Your task to perform on an android device: Open Android settings Image 0: 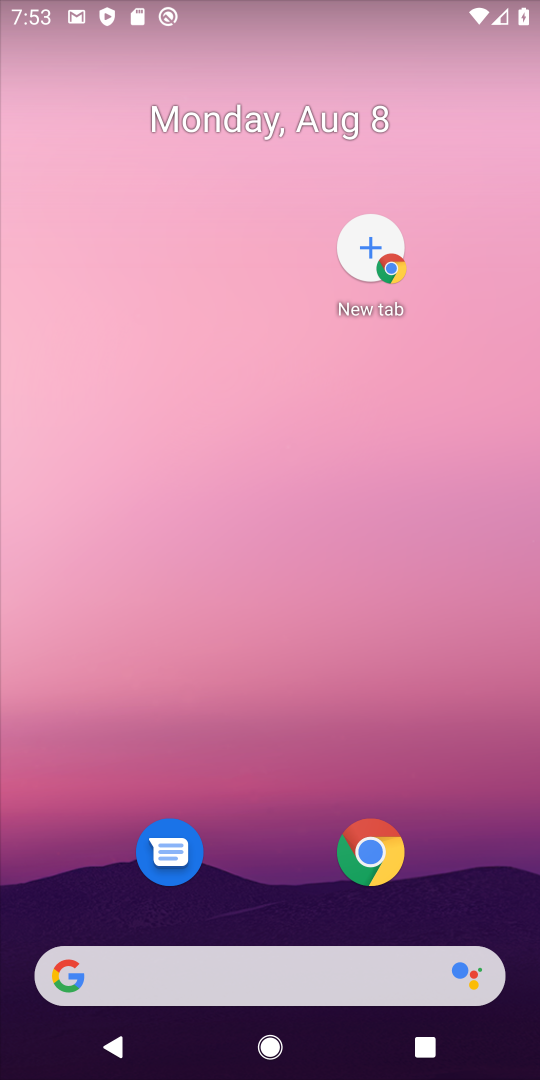
Step 0: drag from (269, 946) to (261, 117)
Your task to perform on an android device: Open Android settings Image 1: 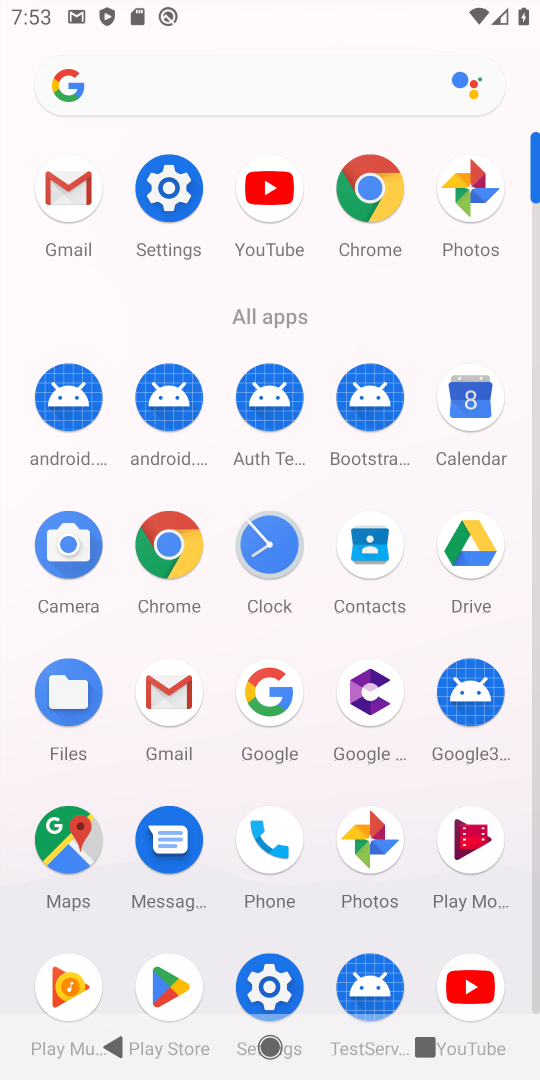
Step 1: click (151, 197)
Your task to perform on an android device: Open Android settings Image 2: 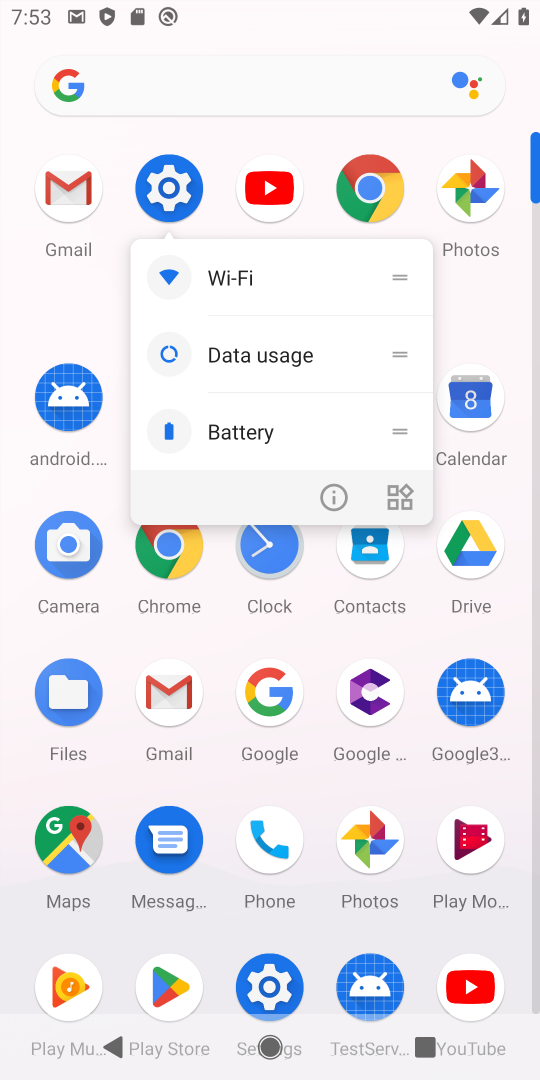
Step 2: click (157, 185)
Your task to perform on an android device: Open Android settings Image 3: 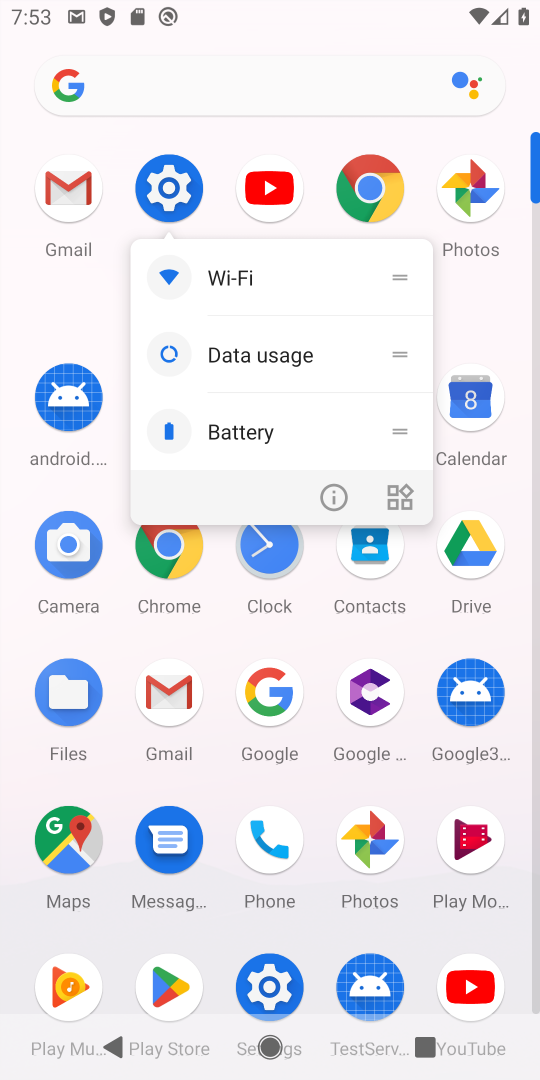
Step 3: click (165, 203)
Your task to perform on an android device: Open Android settings Image 4: 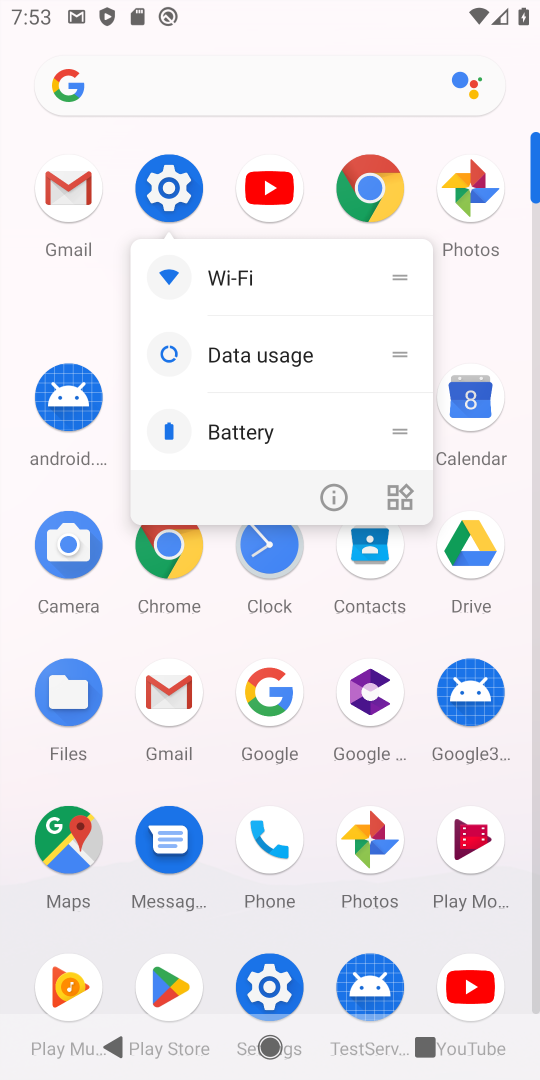
Step 4: click (171, 180)
Your task to perform on an android device: Open Android settings Image 5: 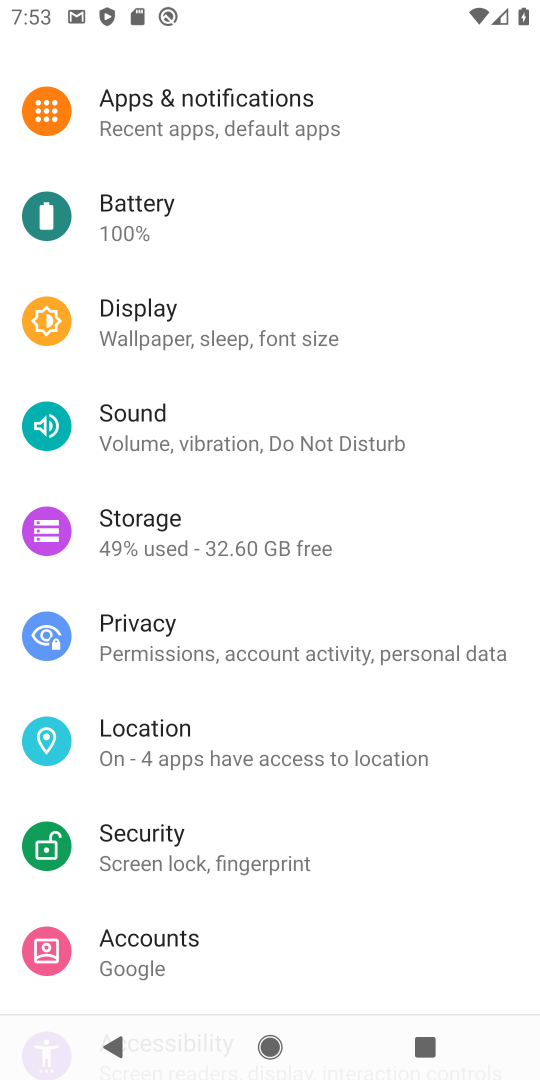
Step 5: task complete